Your task to perform on an android device: Go to Yahoo.com Image 0: 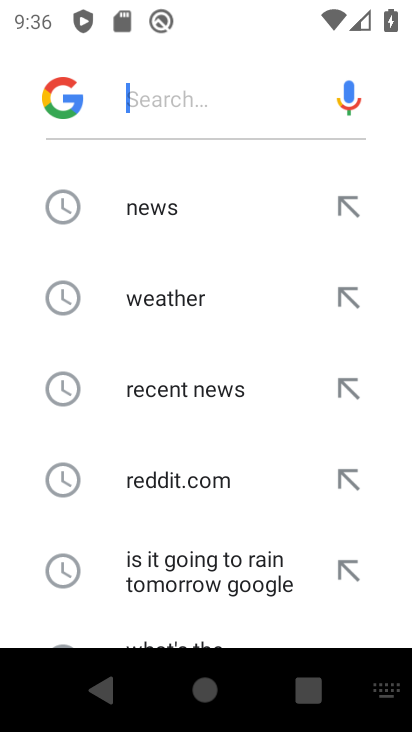
Step 0: press home button
Your task to perform on an android device: Go to Yahoo.com Image 1: 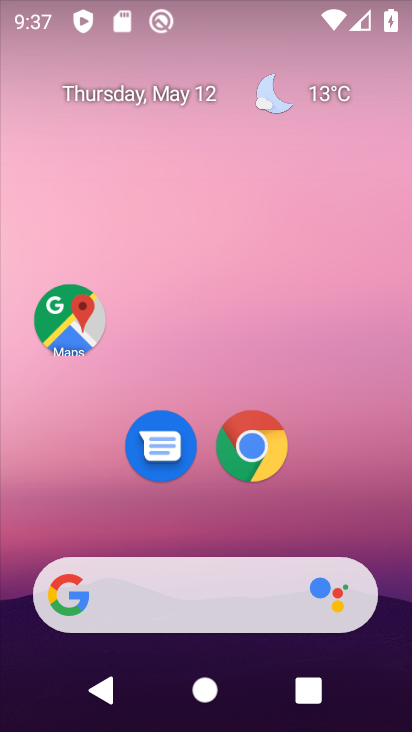
Step 1: drag from (226, 604) to (310, 117)
Your task to perform on an android device: Go to Yahoo.com Image 2: 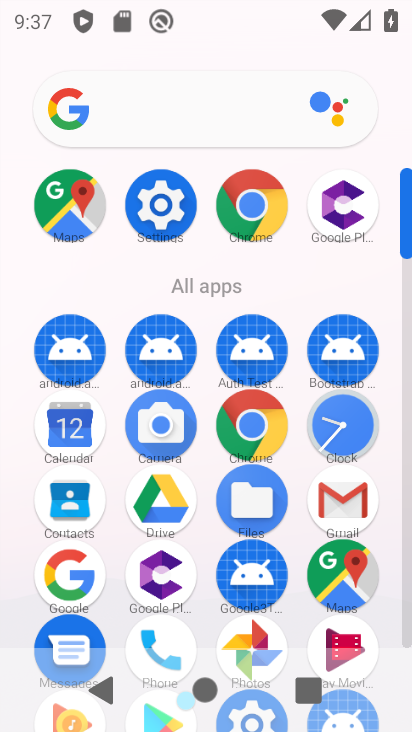
Step 2: click (265, 432)
Your task to perform on an android device: Go to Yahoo.com Image 3: 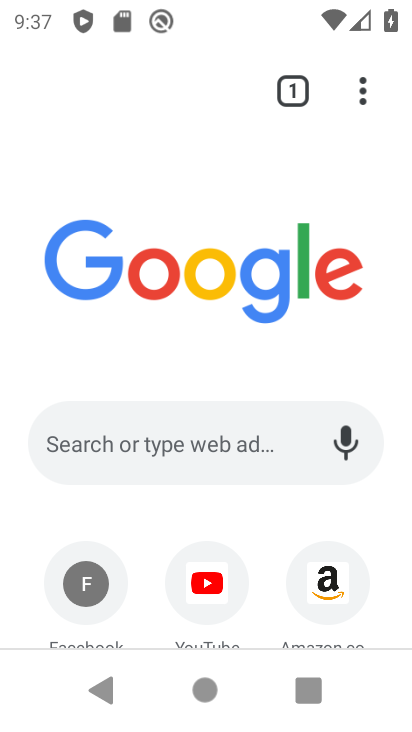
Step 3: click (284, 455)
Your task to perform on an android device: Go to Yahoo.com Image 4: 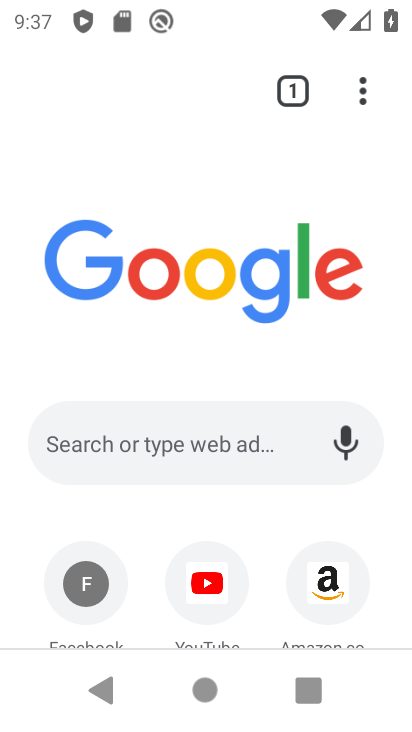
Step 4: click (284, 455)
Your task to perform on an android device: Go to Yahoo.com Image 5: 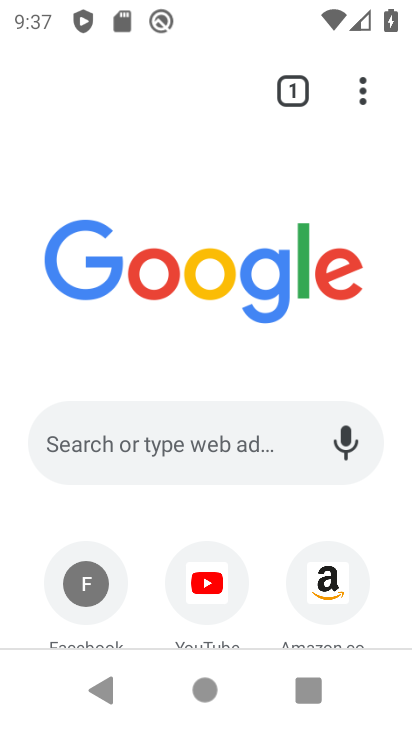
Step 5: click (284, 455)
Your task to perform on an android device: Go to Yahoo.com Image 6: 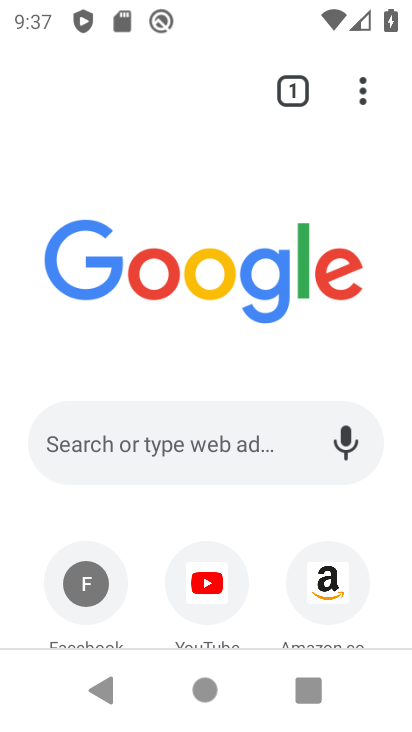
Step 6: click (205, 450)
Your task to perform on an android device: Go to Yahoo.com Image 7: 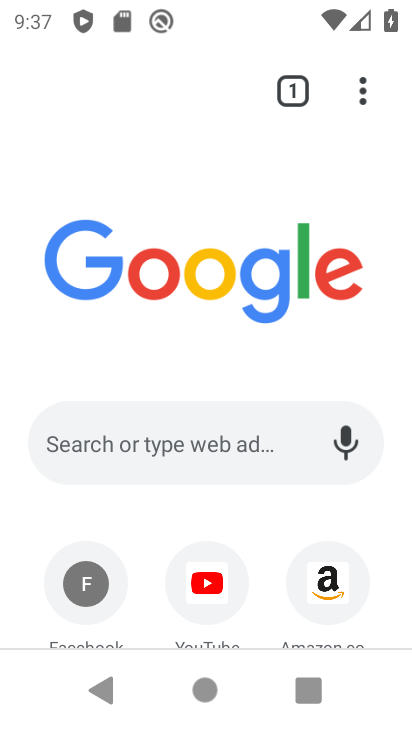
Step 7: click (205, 450)
Your task to perform on an android device: Go to Yahoo.com Image 8: 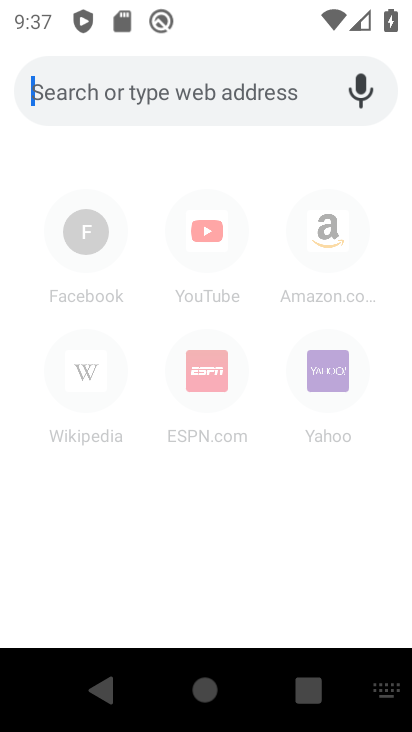
Step 8: press back button
Your task to perform on an android device: Go to Yahoo.com Image 9: 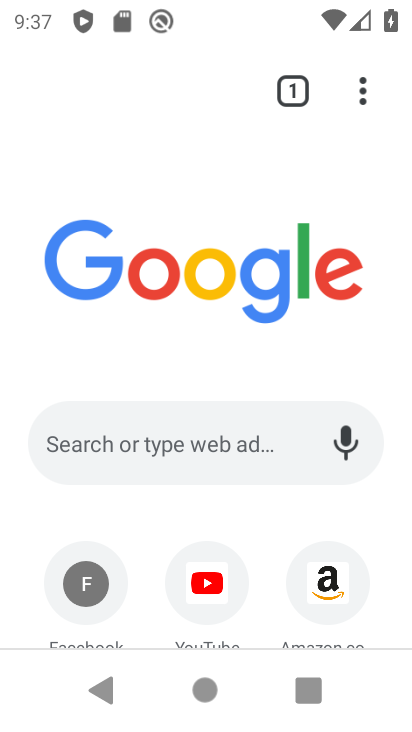
Step 9: drag from (265, 544) to (276, 305)
Your task to perform on an android device: Go to Yahoo.com Image 10: 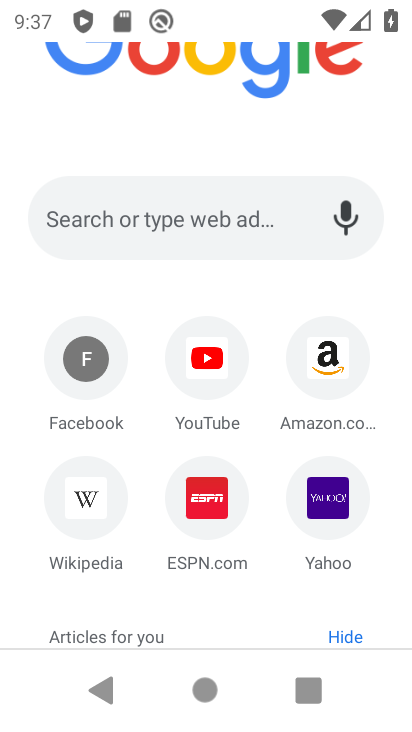
Step 10: click (314, 488)
Your task to perform on an android device: Go to Yahoo.com Image 11: 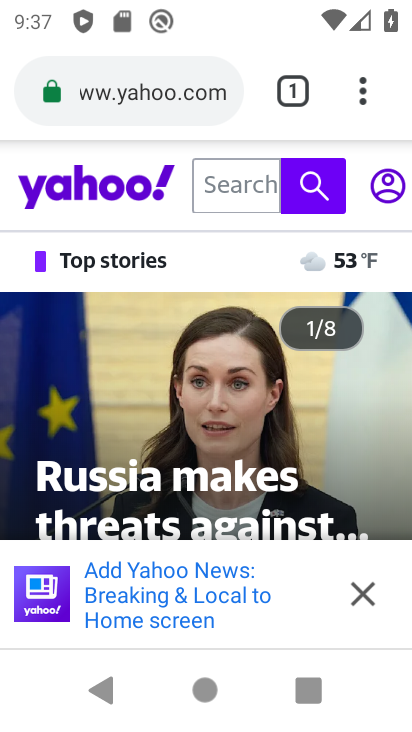
Step 11: task complete